Your task to perform on an android device: Go to location settings Image 0: 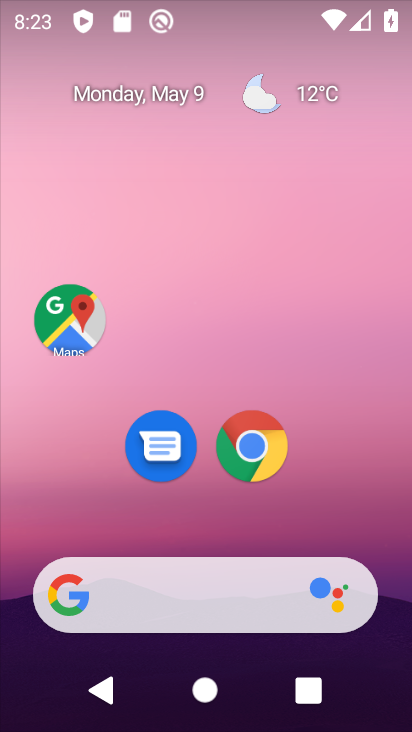
Step 0: drag from (385, 657) to (340, 182)
Your task to perform on an android device: Go to location settings Image 1: 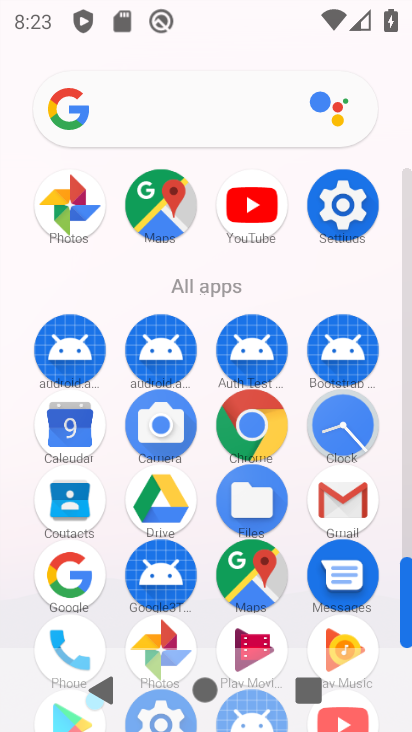
Step 1: drag from (405, 542) to (404, 498)
Your task to perform on an android device: Go to location settings Image 2: 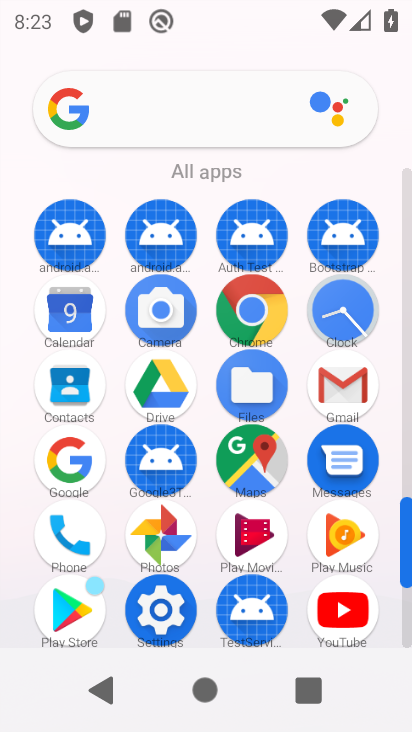
Step 2: click (158, 608)
Your task to perform on an android device: Go to location settings Image 3: 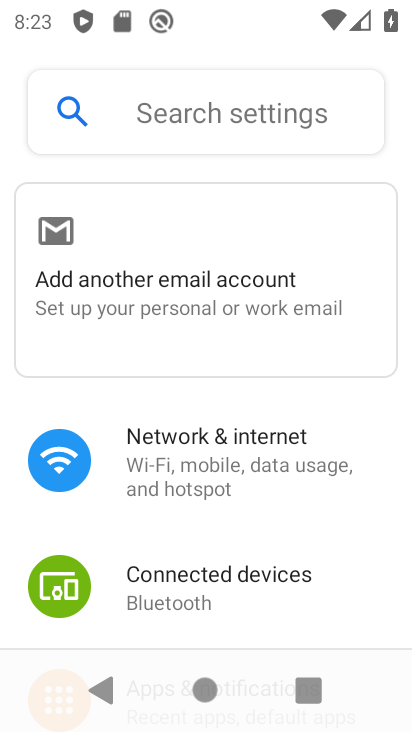
Step 3: drag from (386, 597) to (308, 216)
Your task to perform on an android device: Go to location settings Image 4: 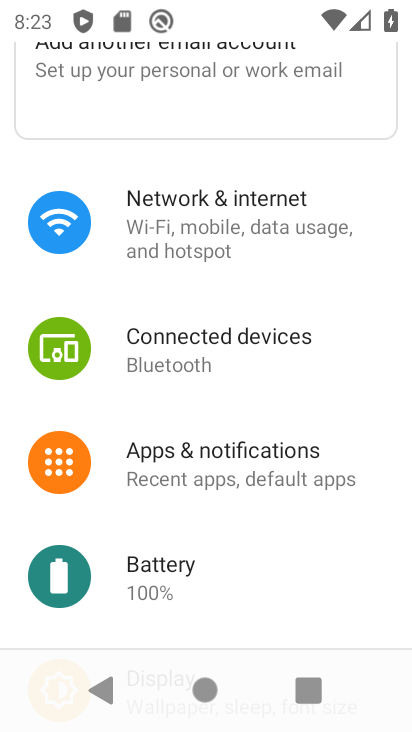
Step 4: drag from (366, 606) to (322, 202)
Your task to perform on an android device: Go to location settings Image 5: 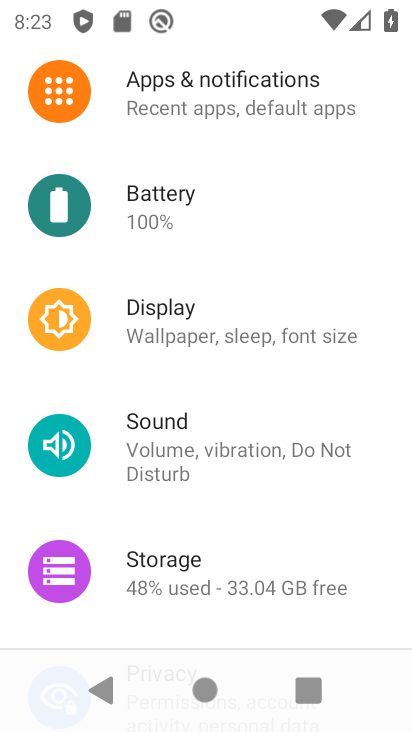
Step 5: drag from (369, 516) to (333, 158)
Your task to perform on an android device: Go to location settings Image 6: 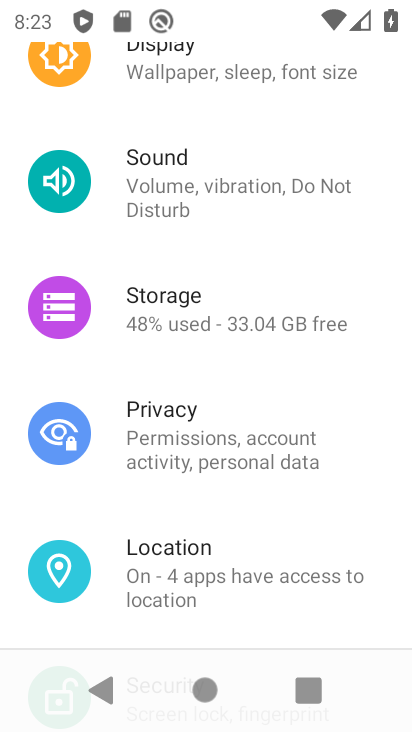
Step 6: click (181, 556)
Your task to perform on an android device: Go to location settings Image 7: 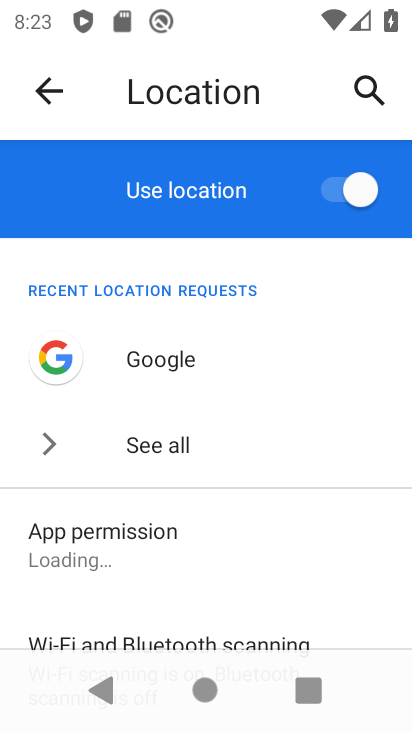
Step 7: task complete